Your task to perform on an android device: turn off location history Image 0: 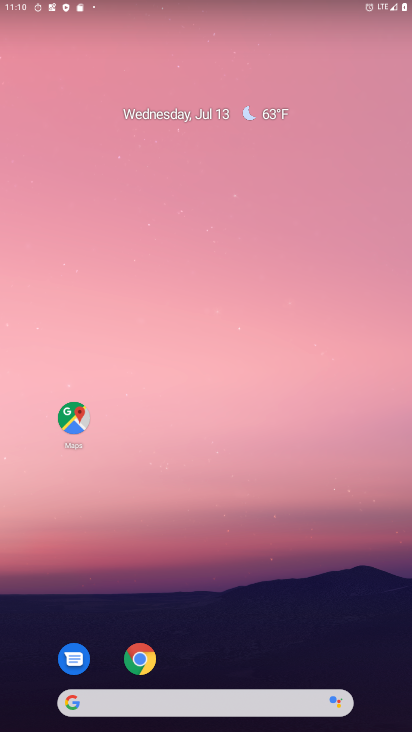
Step 0: drag from (342, 672) to (323, 148)
Your task to perform on an android device: turn off location history Image 1: 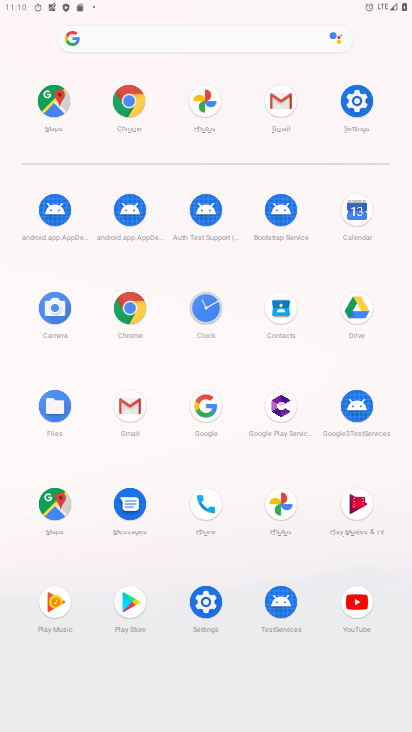
Step 1: click (357, 107)
Your task to perform on an android device: turn off location history Image 2: 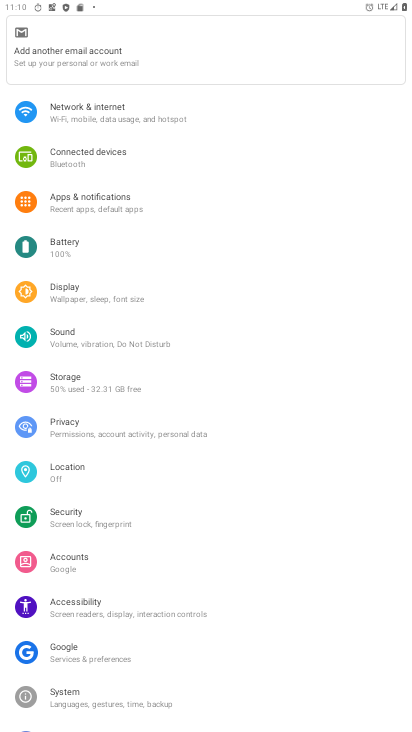
Step 2: click (77, 475)
Your task to perform on an android device: turn off location history Image 3: 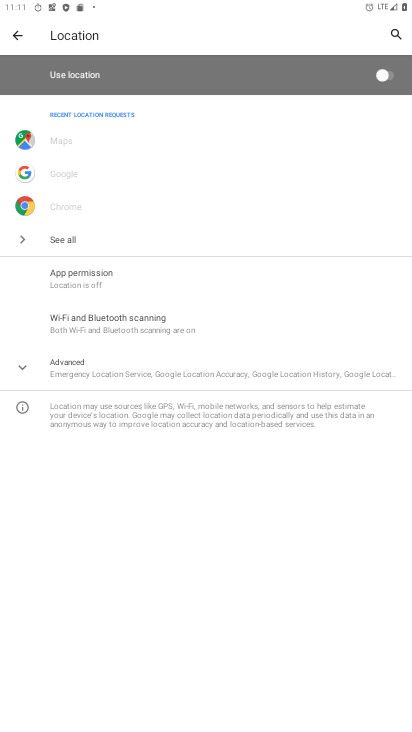
Step 3: click (89, 366)
Your task to perform on an android device: turn off location history Image 4: 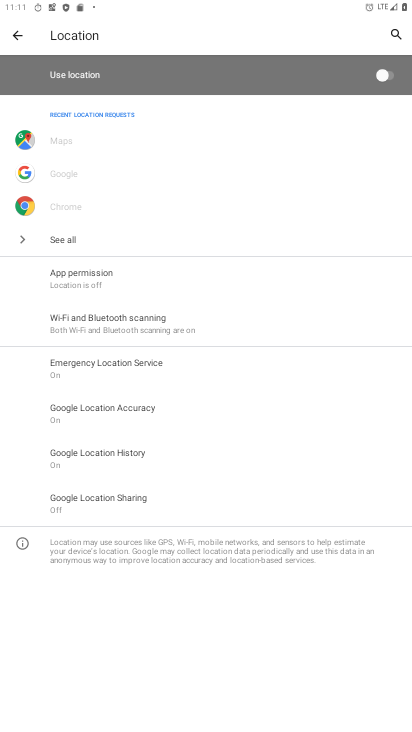
Step 4: click (78, 458)
Your task to perform on an android device: turn off location history Image 5: 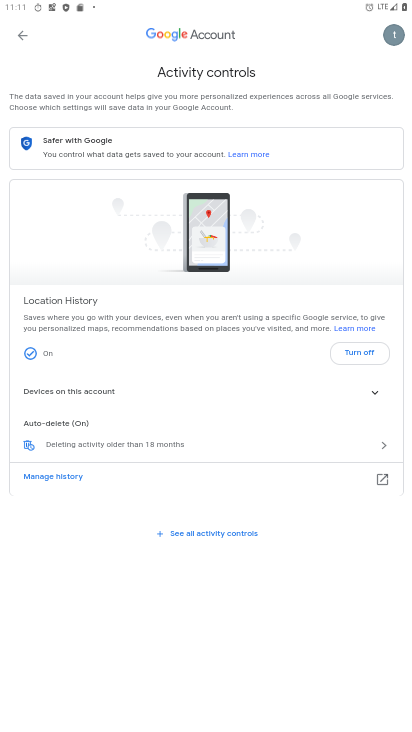
Step 5: click (350, 354)
Your task to perform on an android device: turn off location history Image 6: 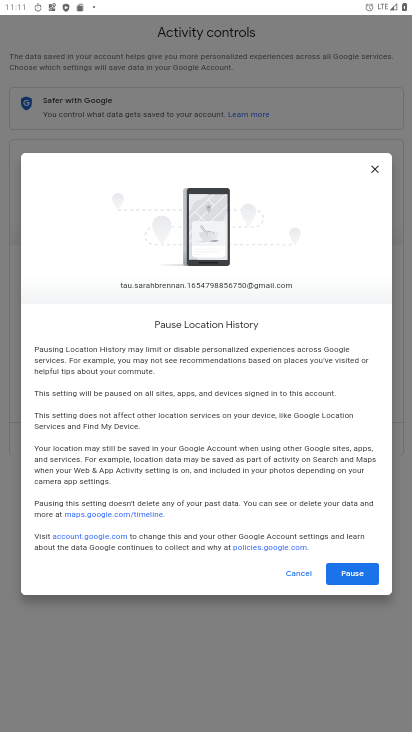
Step 6: click (349, 577)
Your task to perform on an android device: turn off location history Image 7: 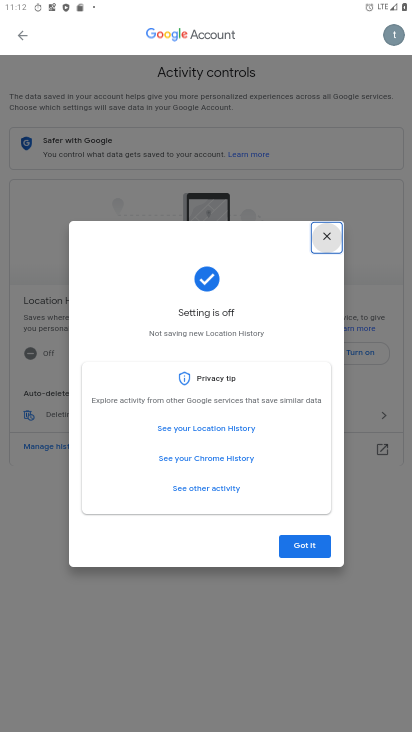
Step 7: task complete